Your task to perform on an android device: turn off data saver in the chrome app Image 0: 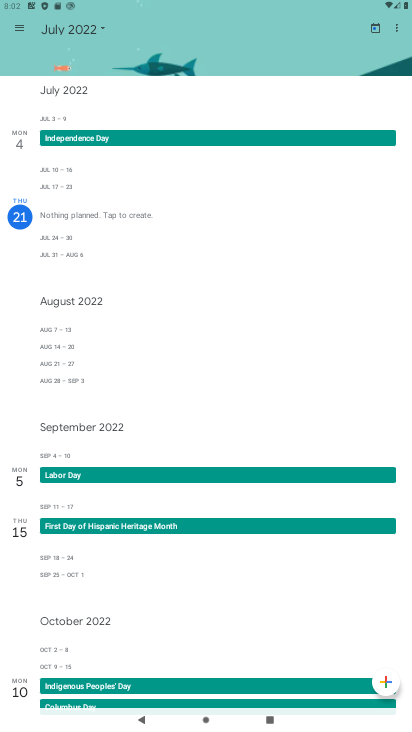
Step 0: press home button
Your task to perform on an android device: turn off data saver in the chrome app Image 1: 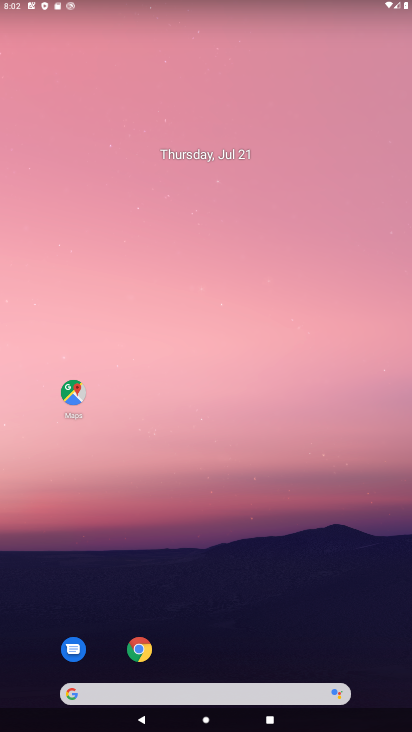
Step 1: drag from (214, 653) to (178, 120)
Your task to perform on an android device: turn off data saver in the chrome app Image 2: 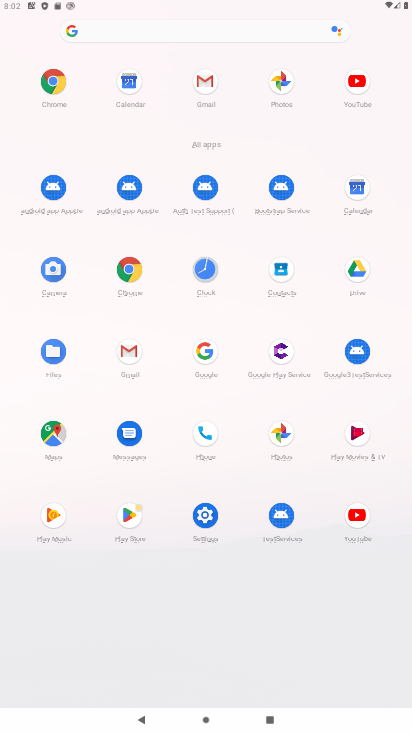
Step 2: click (139, 271)
Your task to perform on an android device: turn off data saver in the chrome app Image 3: 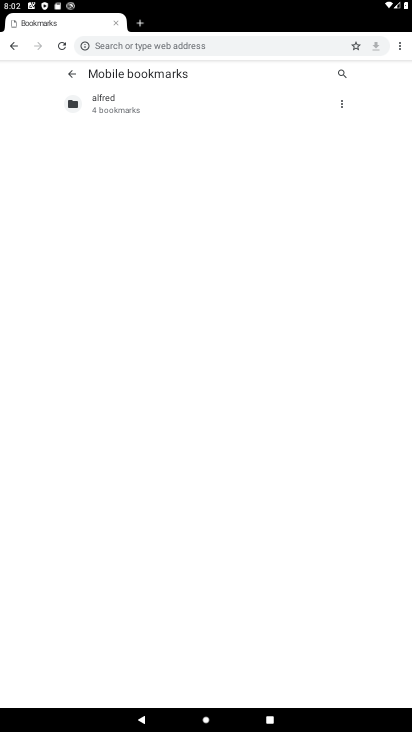
Step 3: click (397, 46)
Your task to perform on an android device: turn off data saver in the chrome app Image 4: 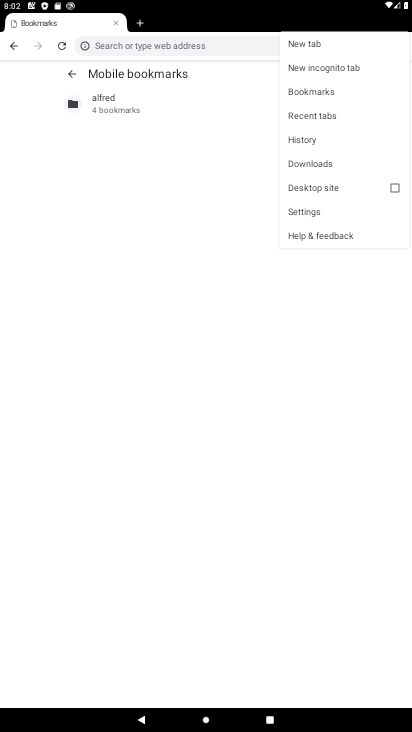
Step 4: click (304, 208)
Your task to perform on an android device: turn off data saver in the chrome app Image 5: 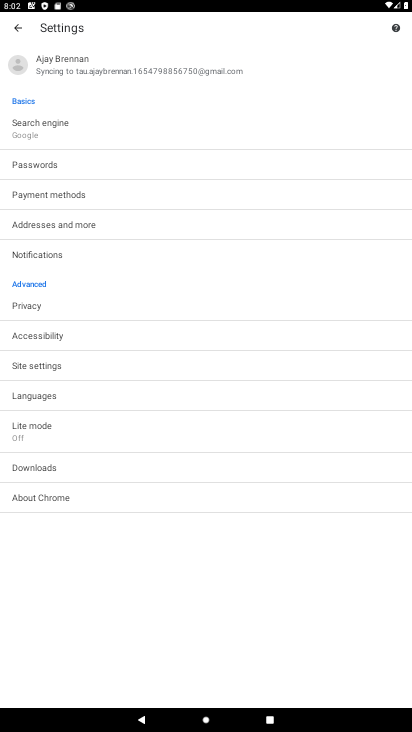
Step 5: click (53, 364)
Your task to perform on an android device: turn off data saver in the chrome app Image 6: 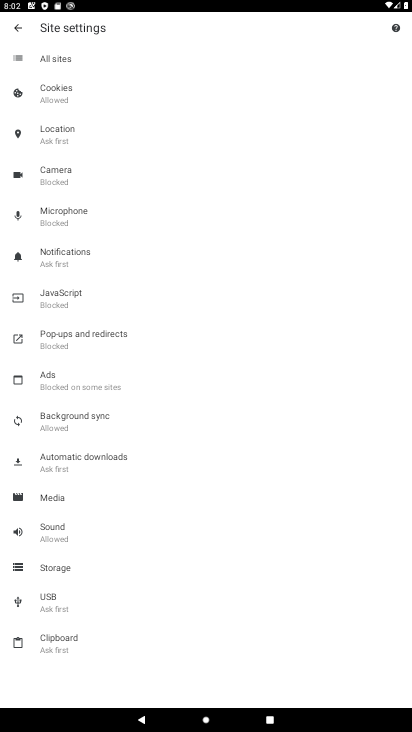
Step 6: click (64, 297)
Your task to perform on an android device: turn off data saver in the chrome app Image 7: 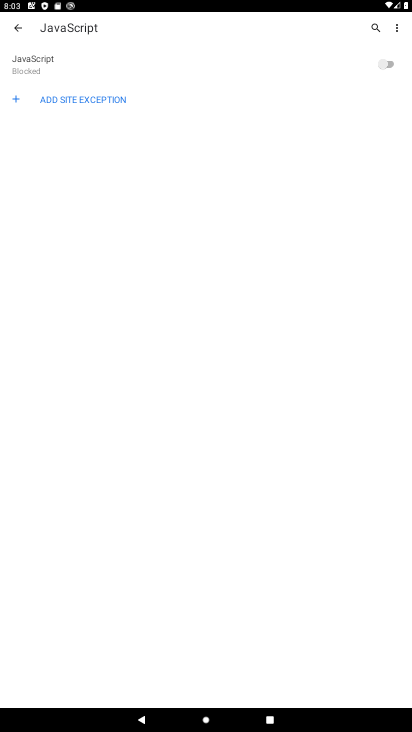
Step 7: task complete